Your task to perform on an android device: toggle translation in the chrome app Image 0: 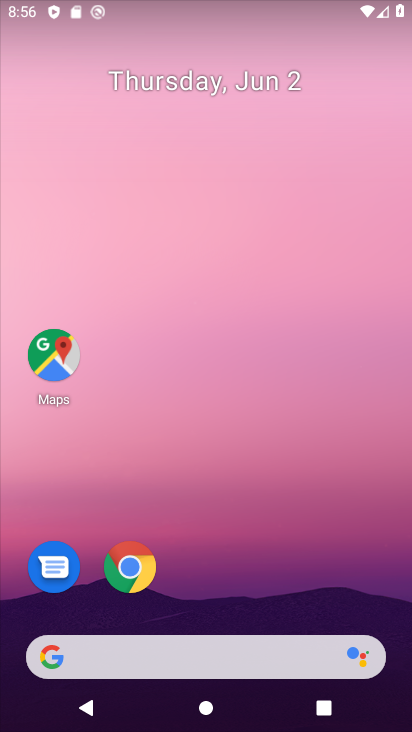
Step 0: drag from (308, 536) to (304, 196)
Your task to perform on an android device: toggle translation in the chrome app Image 1: 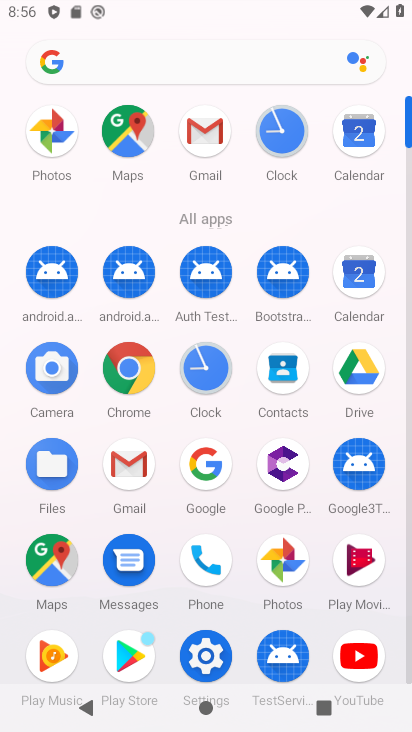
Step 1: click (127, 375)
Your task to perform on an android device: toggle translation in the chrome app Image 2: 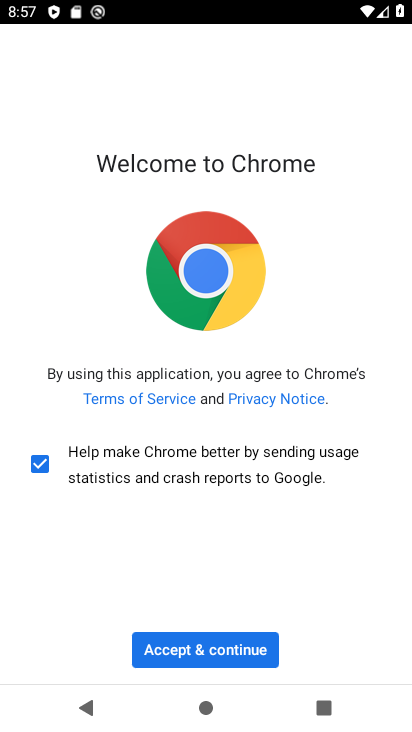
Step 2: click (236, 661)
Your task to perform on an android device: toggle translation in the chrome app Image 3: 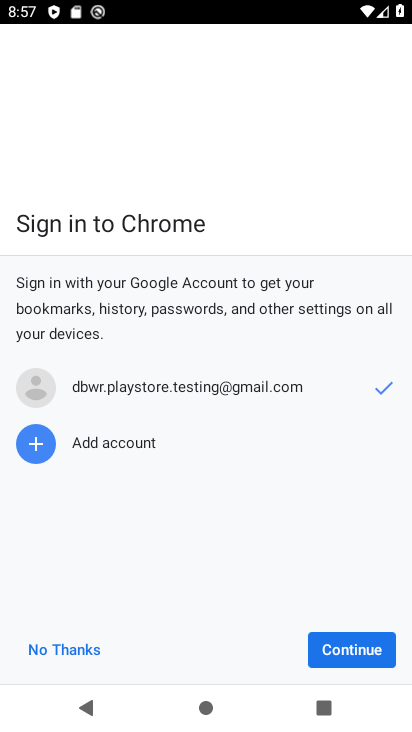
Step 3: click (313, 638)
Your task to perform on an android device: toggle translation in the chrome app Image 4: 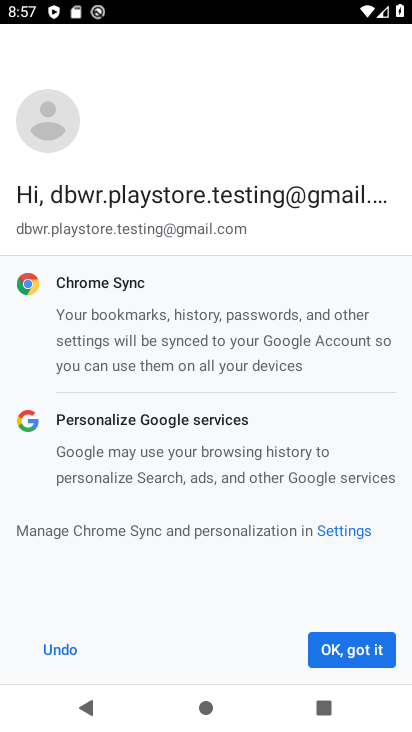
Step 4: click (313, 644)
Your task to perform on an android device: toggle translation in the chrome app Image 5: 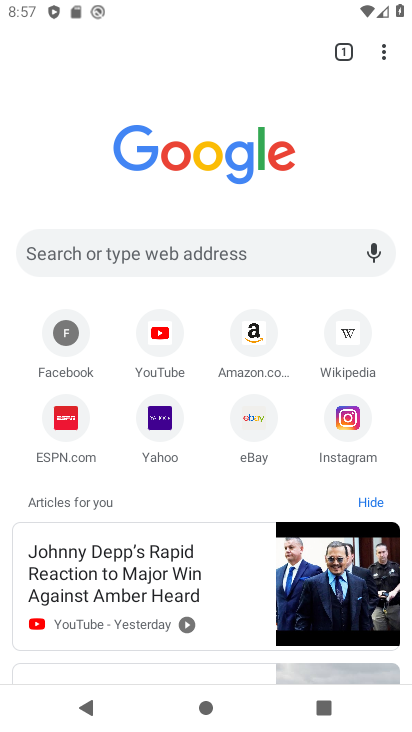
Step 5: click (388, 46)
Your task to perform on an android device: toggle translation in the chrome app Image 6: 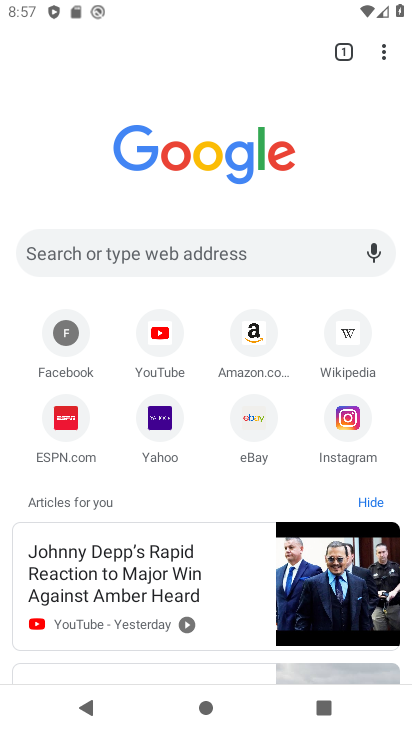
Step 6: drag from (372, 68) to (206, 435)
Your task to perform on an android device: toggle translation in the chrome app Image 7: 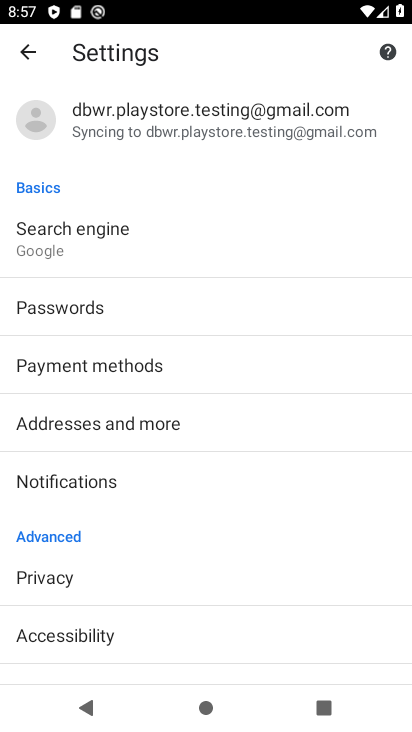
Step 7: drag from (253, 548) to (312, 299)
Your task to perform on an android device: toggle translation in the chrome app Image 8: 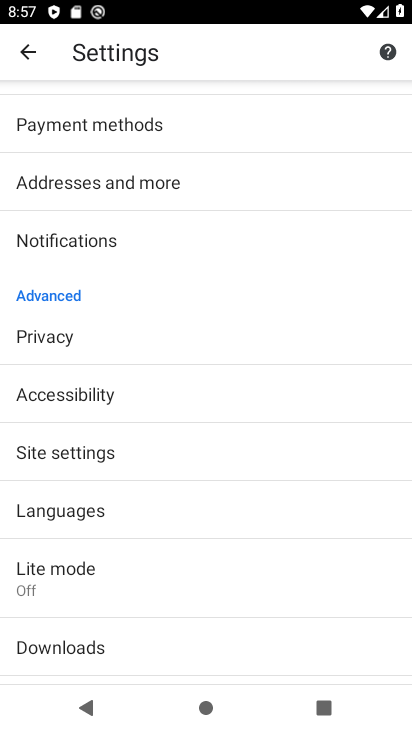
Step 8: drag from (183, 636) to (248, 336)
Your task to perform on an android device: toggle translation in the chrome app Image 9: 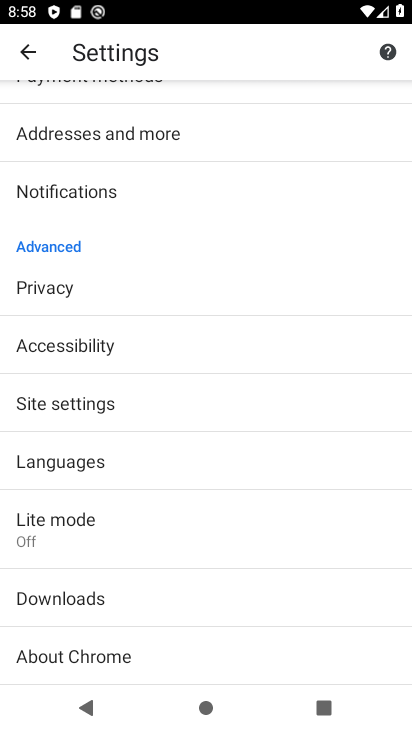
Step 9: click (139, 463)
Your task to perform on an android device: toggle translation in the chrome app Image 10: 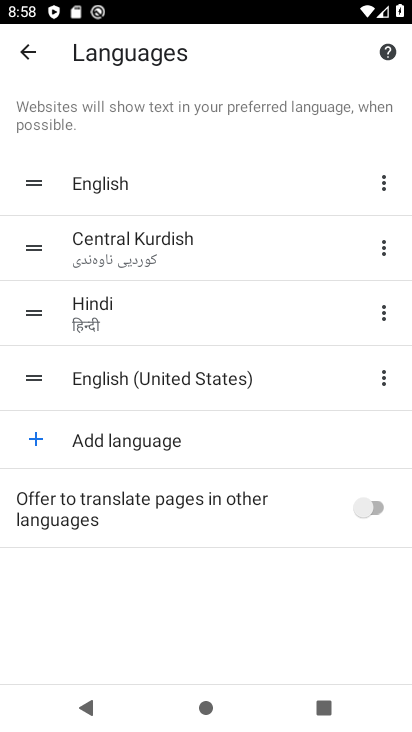
Step 10: click (383, 495)
Your task to perform on an android device: toggle translation in the chrome app Image 11: 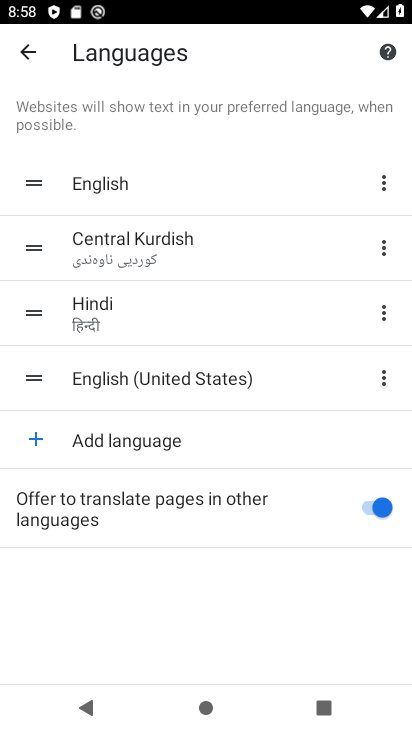
Step 11: task complete